Your task to perform on an android device: open app "ZOOM Cloud Meetings" (install if not already installed) and go to login screen Image 0: 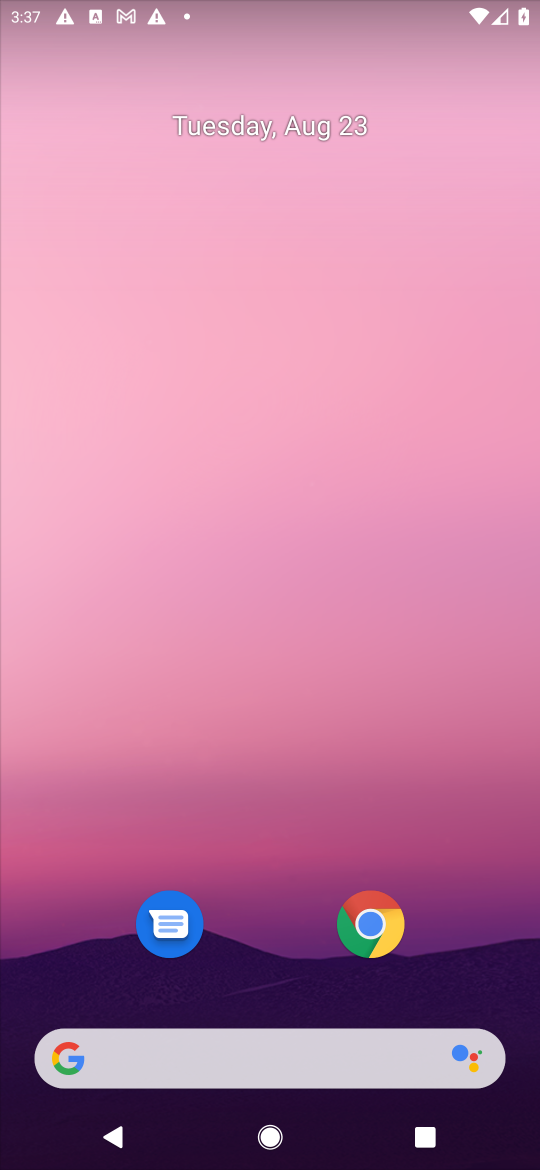
Step 0: press home button
Your task to perform on an android device: open app "ZOOM Cloud Meetings" (install if not already installed) and go to login screen Image 1: 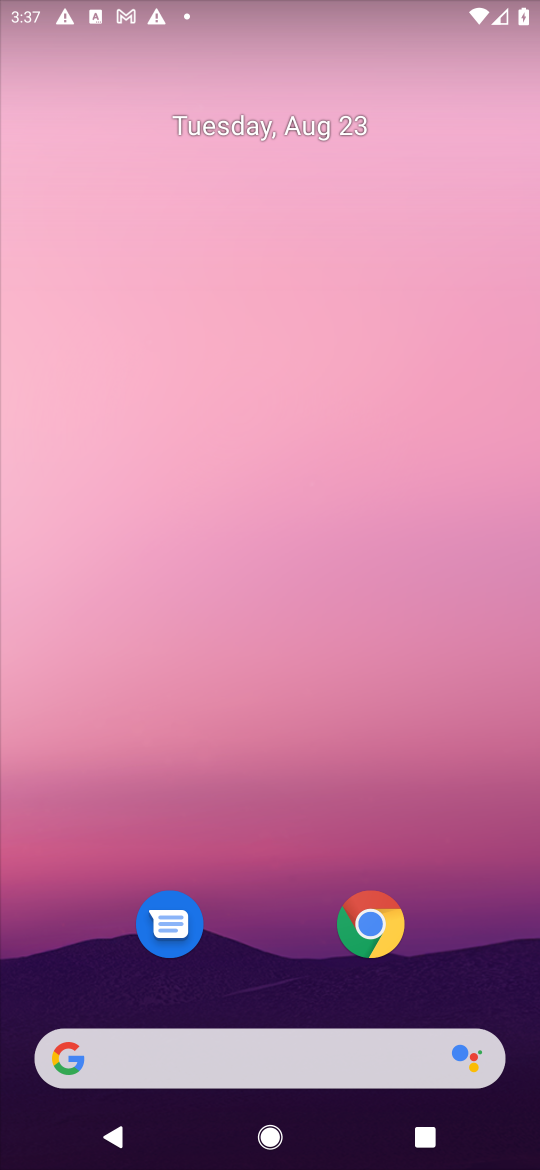
Step 1: drag from (471, 961) to (423, 74)
Your task to perform on an android device: open app "ZOOM Cloud Meetings" (install if not already installed) and go to login screen Image 2: 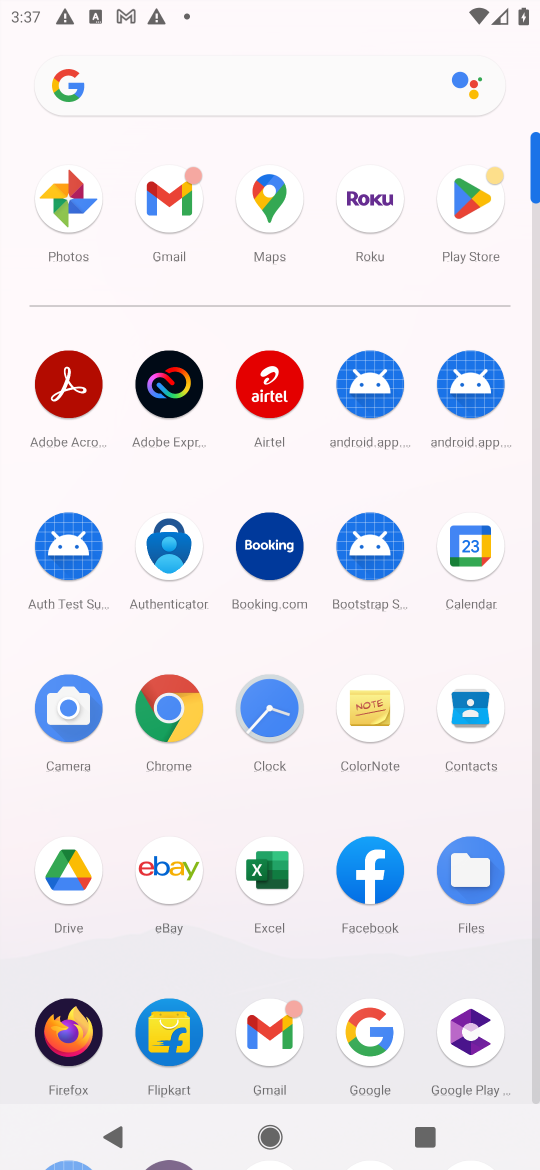
Step 2: click (475, 191)
Your task to perform on an android device: open app "ZOOM Cloud Meetings" (install if not already installed) and go to login screen Image 3: 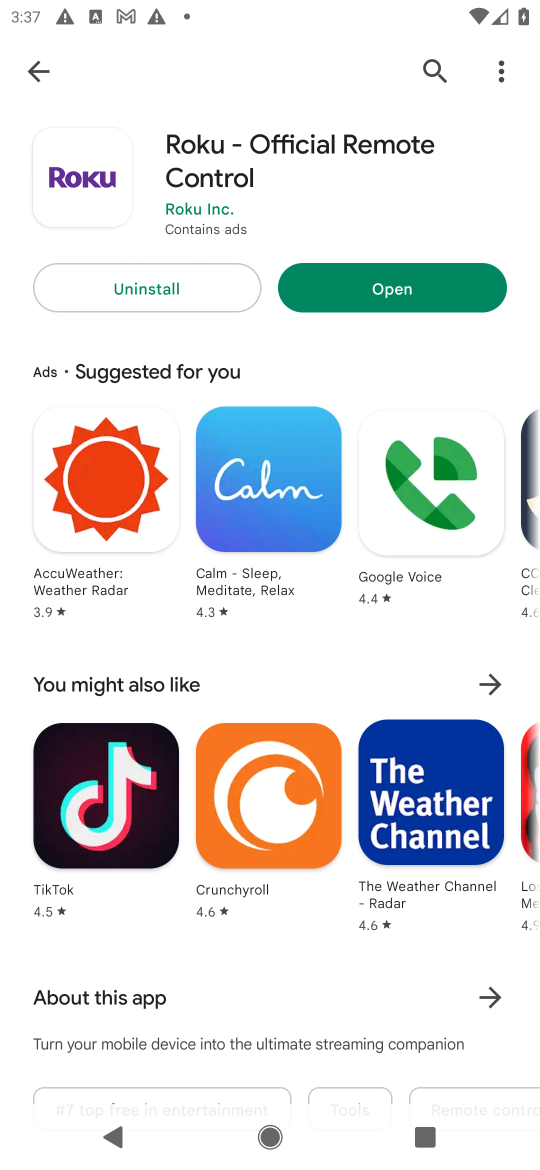
Step 3: press back button
Your task to perform on an android device: open app "ZOOM Cloud Meetings" (install if not already installed) and go to login screen Image 4: 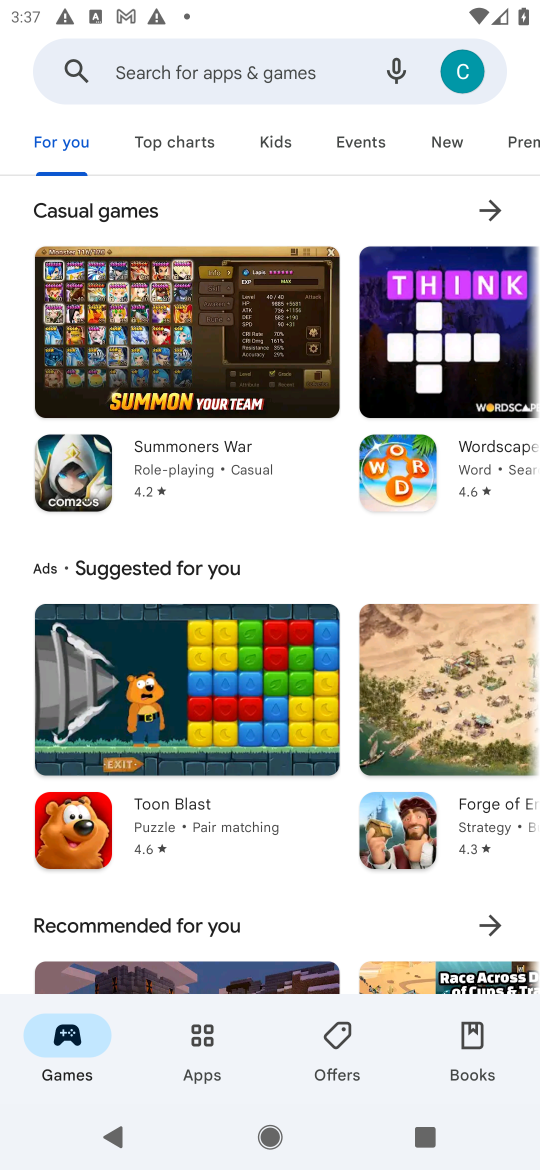
Step 4: click (158, 79)
Your task to perform on an android device: open app "ZOOM Cloud Meetings" (install if not already installed) and go to login screen Image 5: 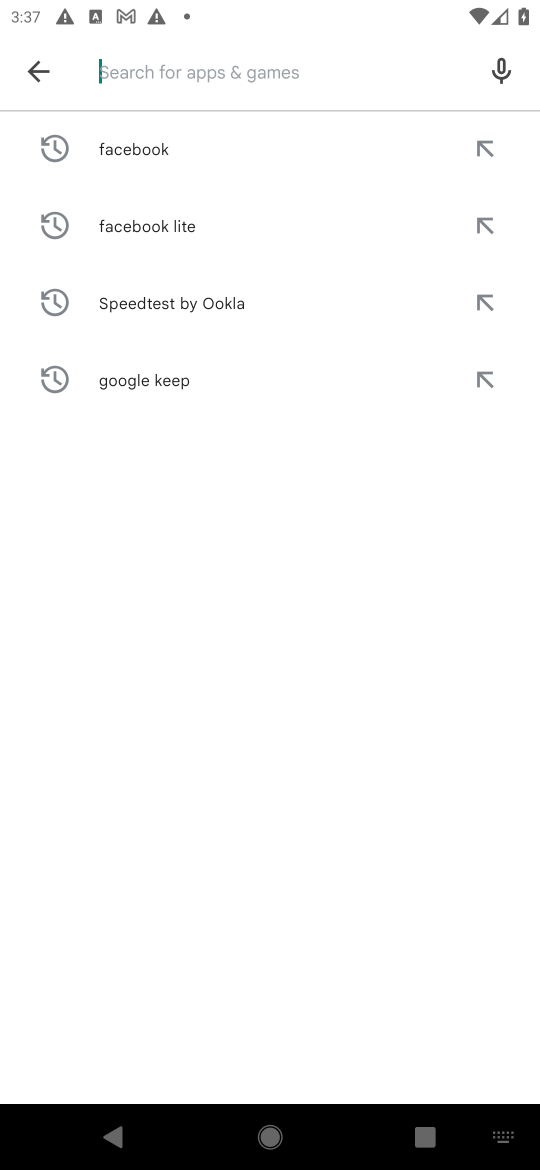
Step 5: press enter
Your task to perform on an android device: open app "ZOOM Cloud Meetings" (install if not already installed) and go to login screen Image 6: 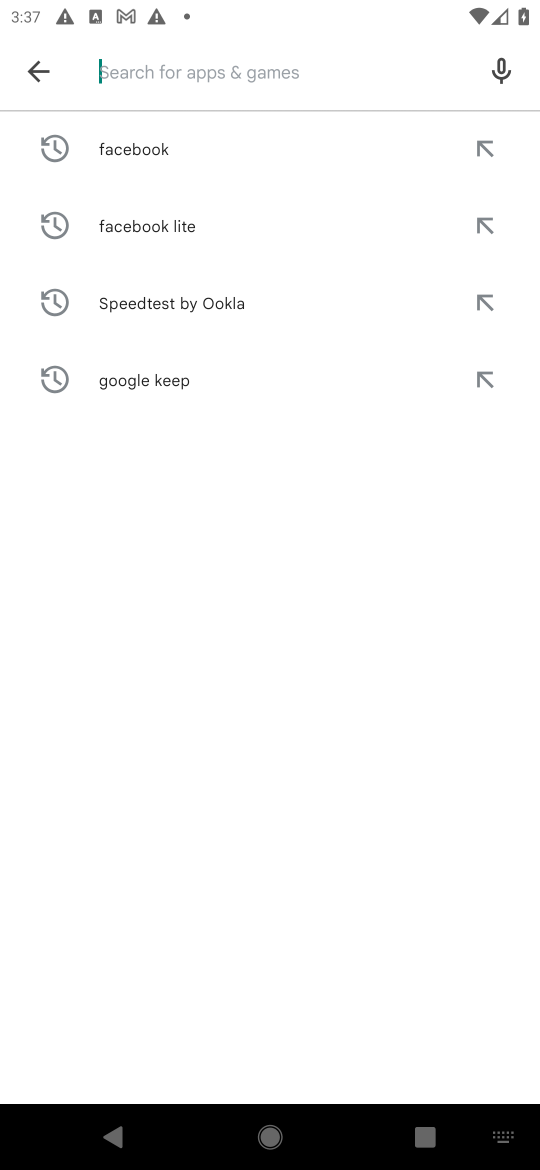
Step 6: type "ZOOM Cloud Meetings"
Your task to perform on an android device: open app "ZOOM Cloud Meetings" (install if not already installed) and go to login screen Image 7: 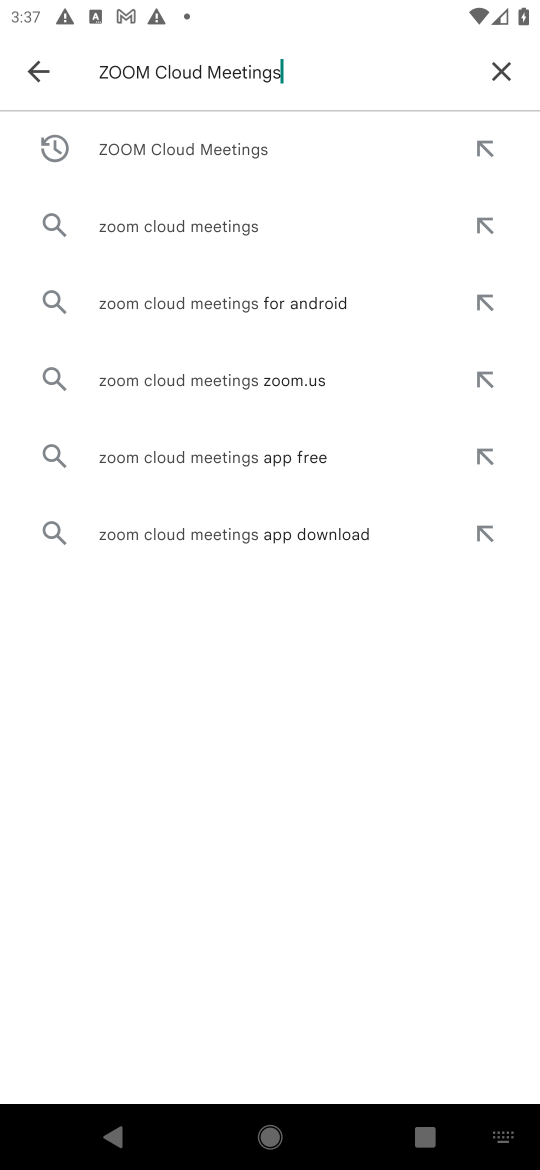
Step 7: click (230, 140)
Your task to perform on an android device: open app "ZOOM Cloud Meetings" (install if not already installed) and go to login screen Image 8: 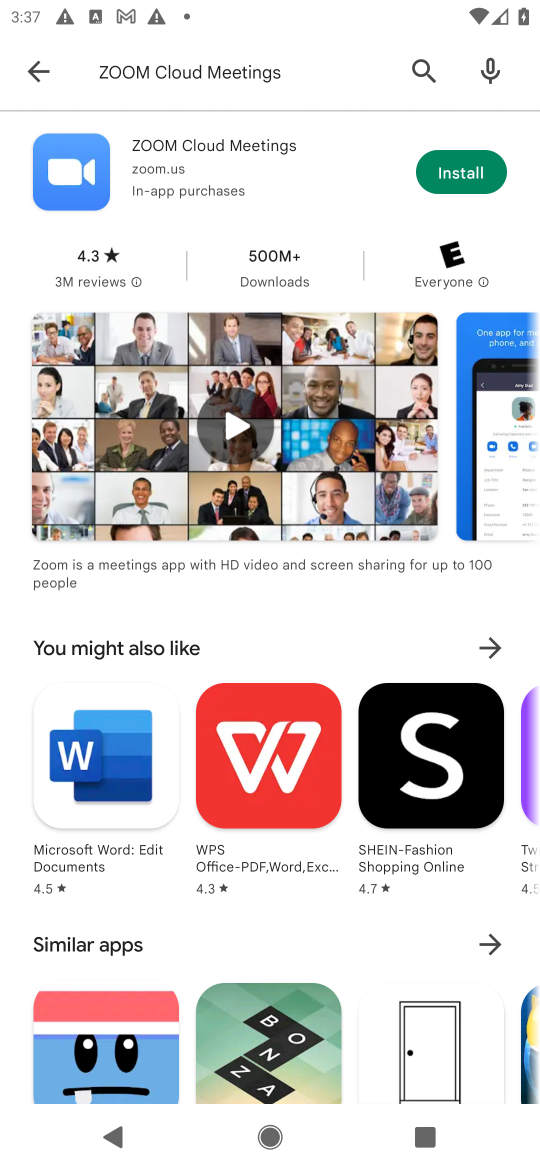
Step 8: click (472, 167)
Your task to perform on an android device: open app "ZOOM Cloud Meetings" (install if not already installed) and go to login screen Image 9: 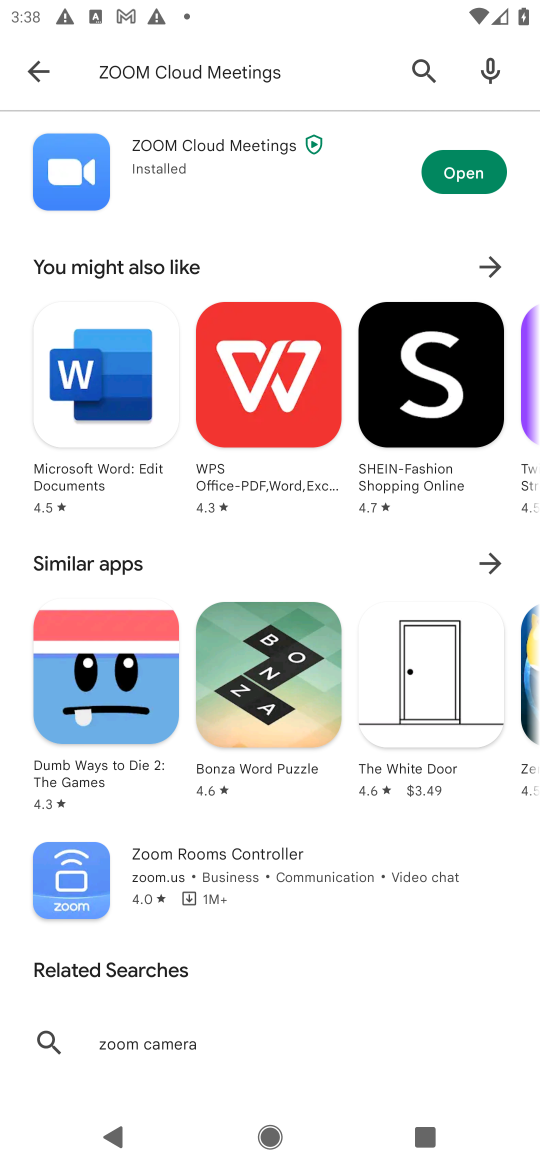
Step 9: click (472, 170)
Your task to perform on an android device: open app "ZOOM Cloud Meetings" (install if not already installed) and go to login screen Image 10: 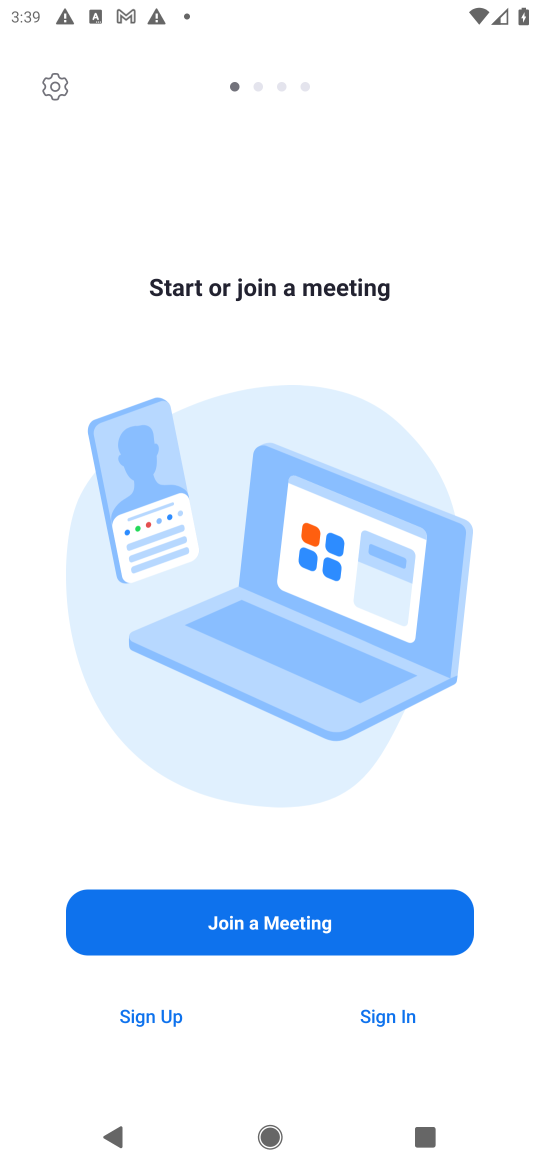
Step 10: task complete